Your task to perform on an android device: Go to privacy settings Image 0: 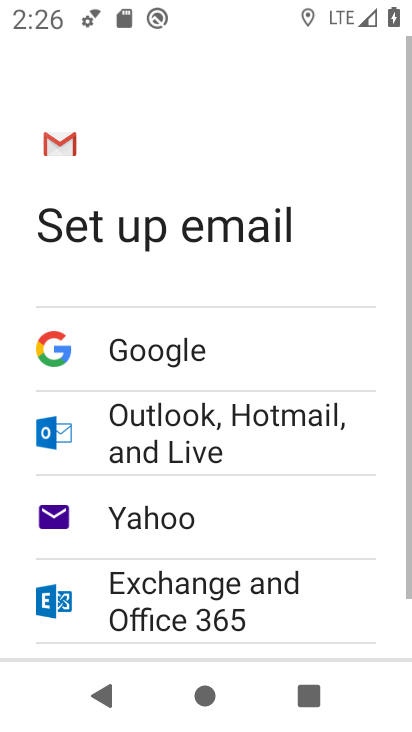
Step 0: press home button
Your task to perform on an android device: Go to privacy settings Image 1: 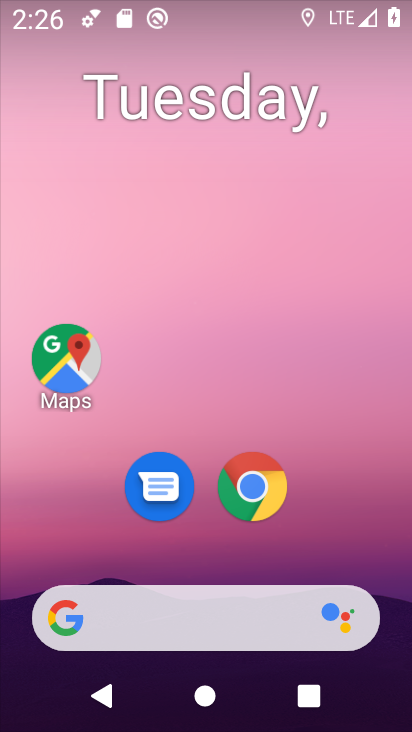
Step 1: drag from (384, 546) to (361, 128)
Your task to perform on an android device: Go to privacy settings Image 2: 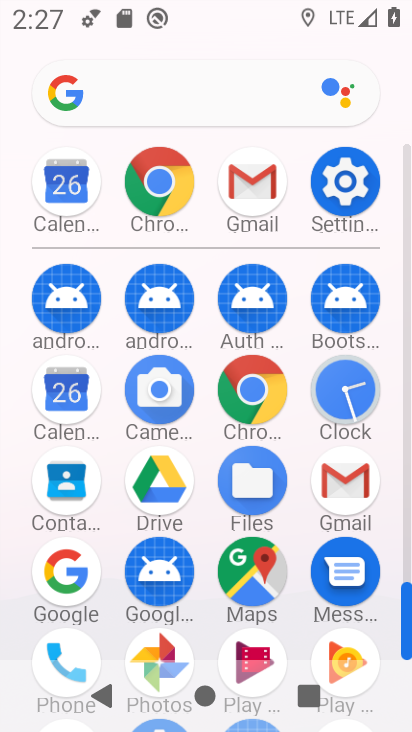
Step 2: click (340, 193)
Your task to perform on an android device: Go to privacy settings Image 3: 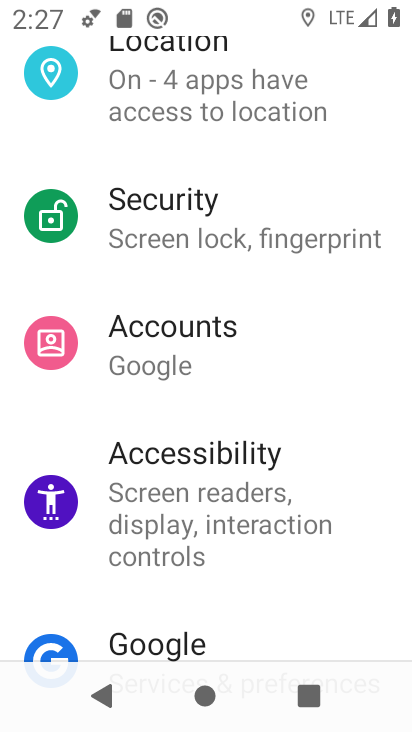
Step 3: drag from (375, 287) to (375, 343)
Your task to perform on an android device: Go to privacy settings Image 4: 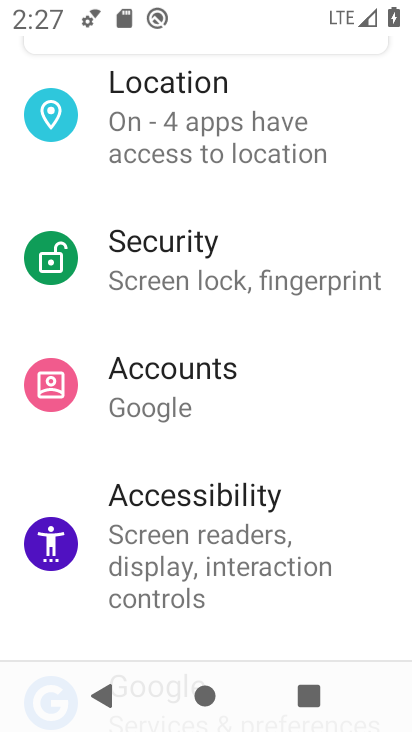
Step 4: drag from (374, 251) to (374, 334)
Your task to perform on an android device: Go to privacy settings Image 5: 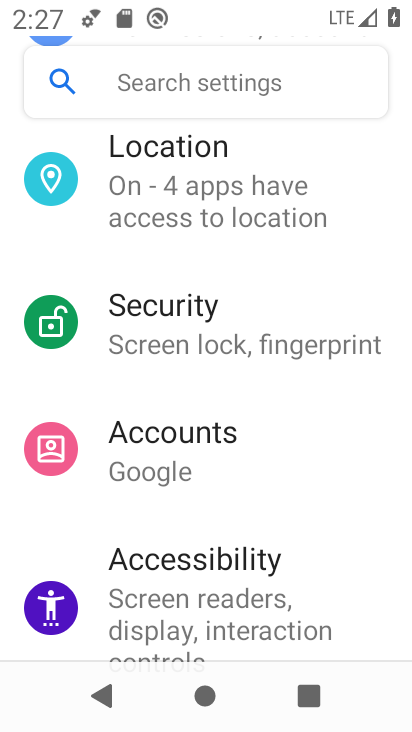
Step 5: drag from (372, 226) to (371, 302)
Your task to perform on an android device: Go to privacy settings Image 6: 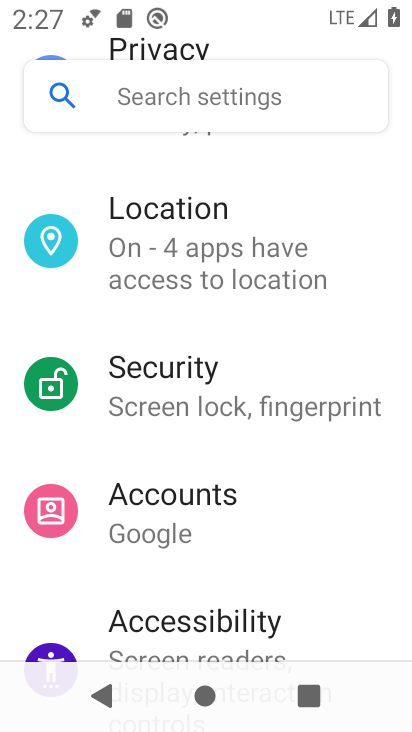
Step 6: drag from (373, 226) to (378, 309)
Your task to perform on an android device: Go to privacy settings Image 7: 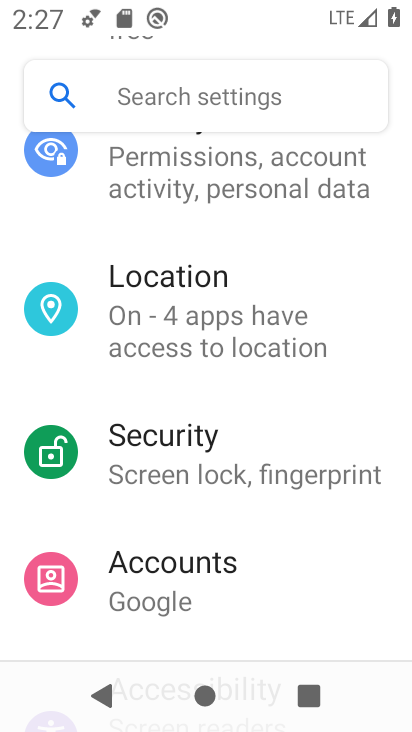
Step 7: drag from (380, 233) to (380, 315)
Your task to perform on an android device: Go to privacy settings Image 8: 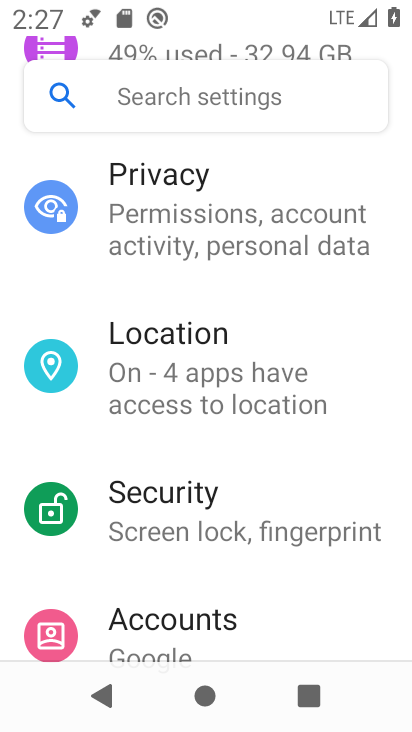
Step 8: drag from (380, 222) to (381, 344)
Your task to perform on an android device: Go to privacy settings Image 9: 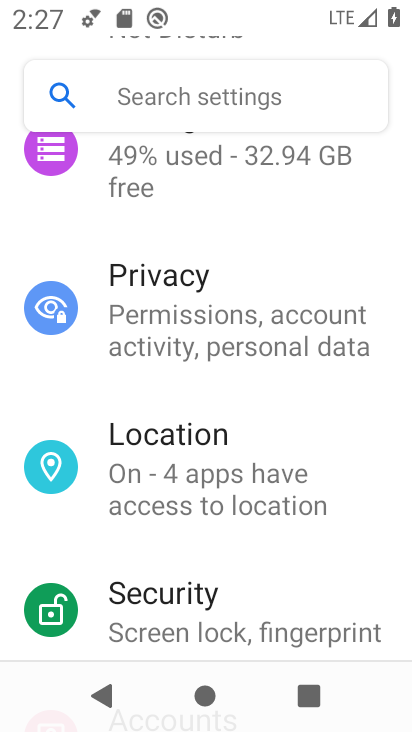
Step 9: drag from (380, 220) to (384, 385)
Your task to perform on an android device: Go to privacy settings Image 10: 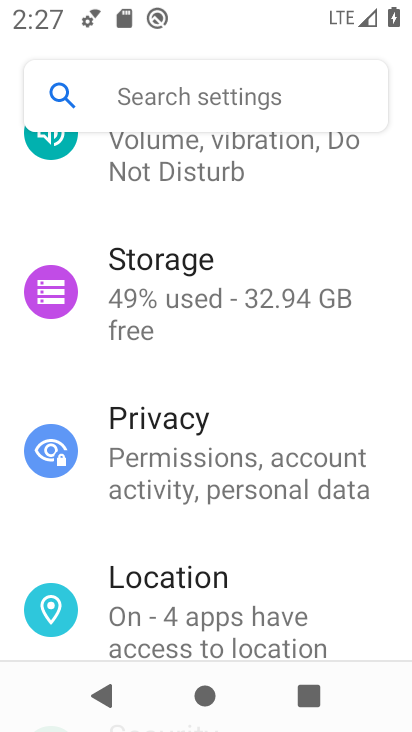
Step 10: click (332, 456)
Your task to perform on an android device: Go to privacy settings Image 11: 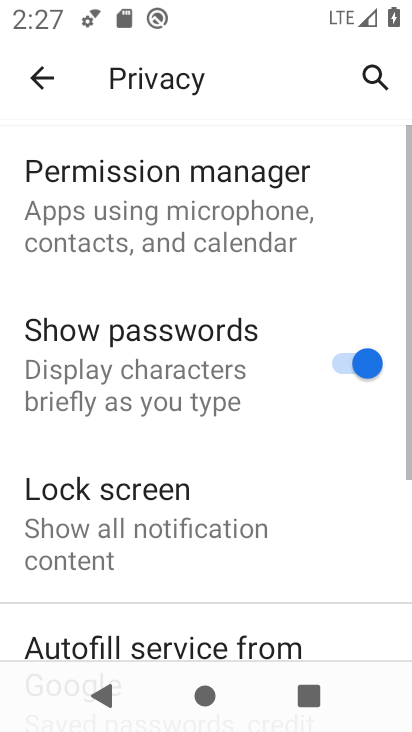
Step 11: task complete